Your task to perform on an android device: Is it going to rain today? Image 0: 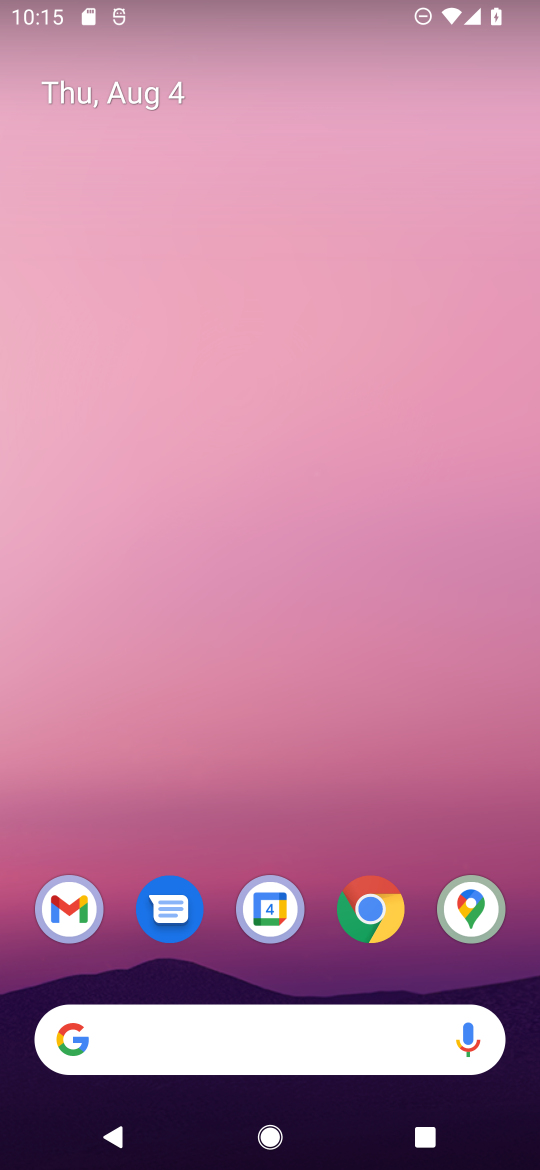
Step 0: click (190, 1047)
Your task to perform on an android device: Is it going to rain today? Image 1: 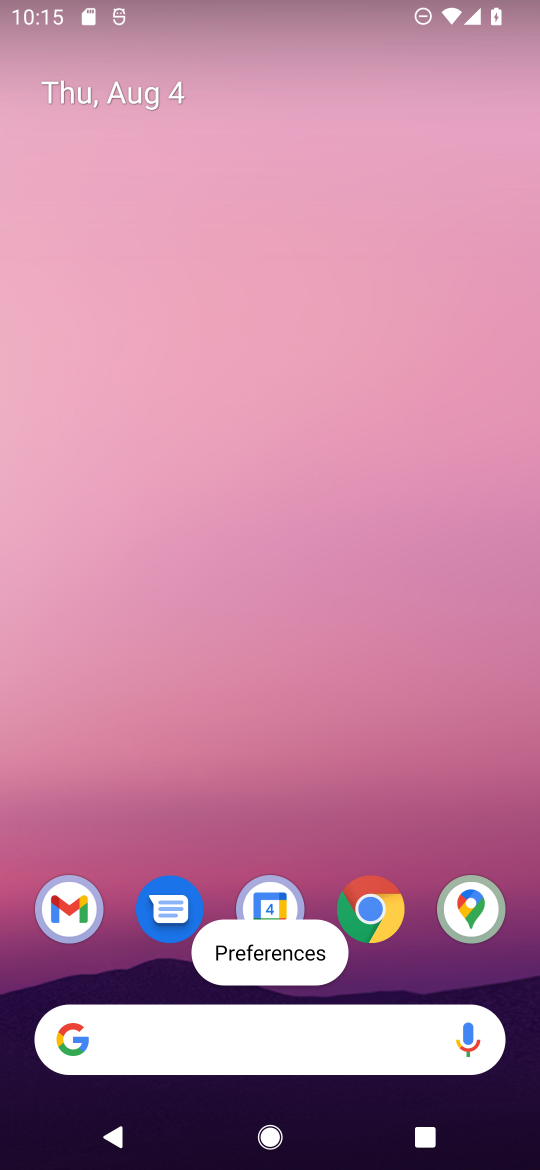
Step 1: click (192, 1042)
Your task to perform on an android device: Is it going to rain today? Image 2: 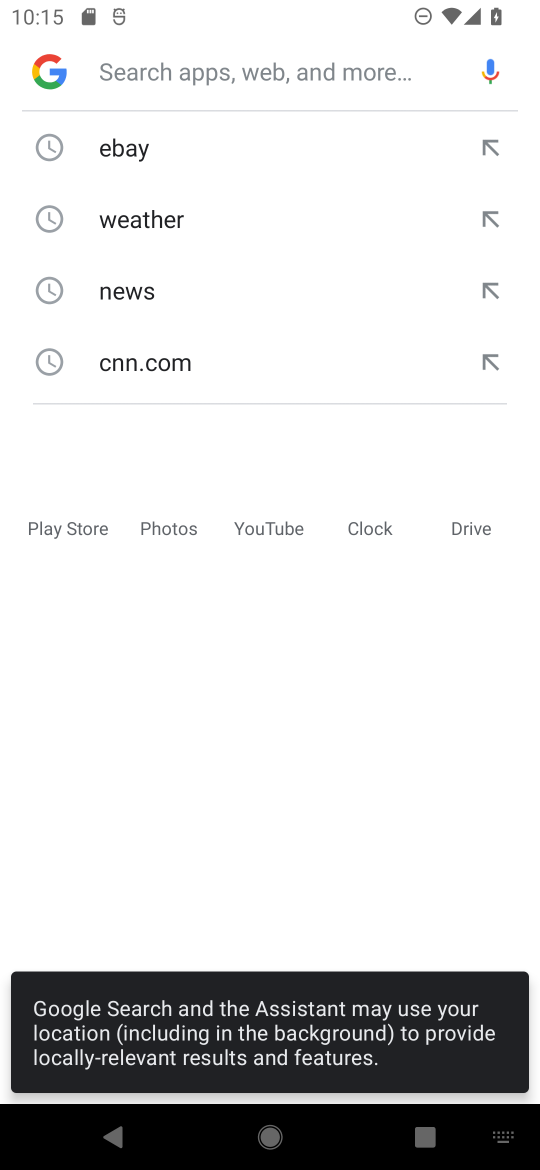
Step 2: click (157, 226)
Your task to perform on an android device: Is it going to rain today? Image 3: 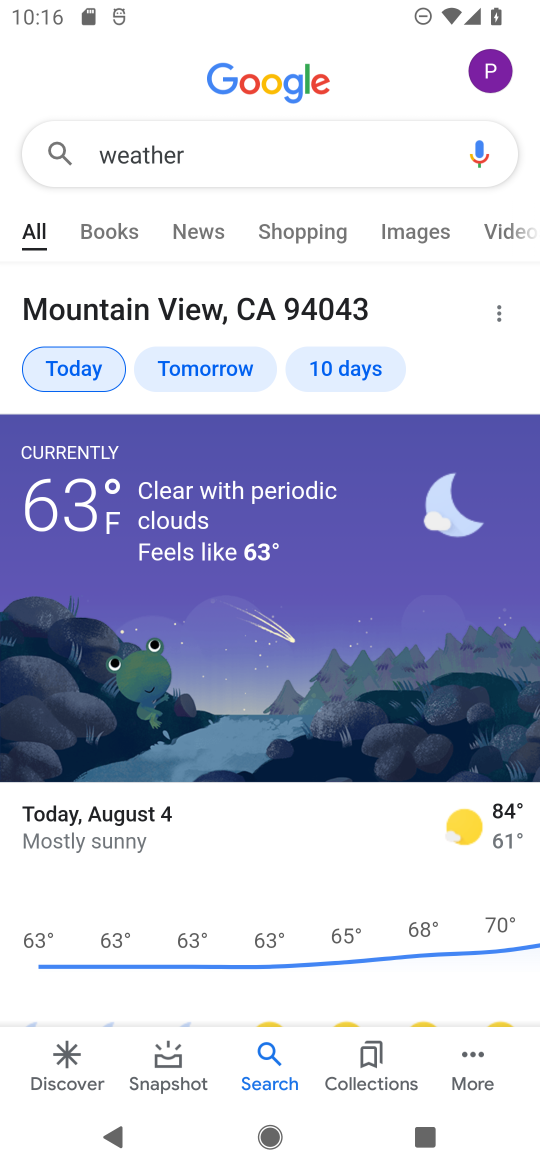
Step 3: task complete